Your task to perform on an android device: change the upload size in google photos Image 0: 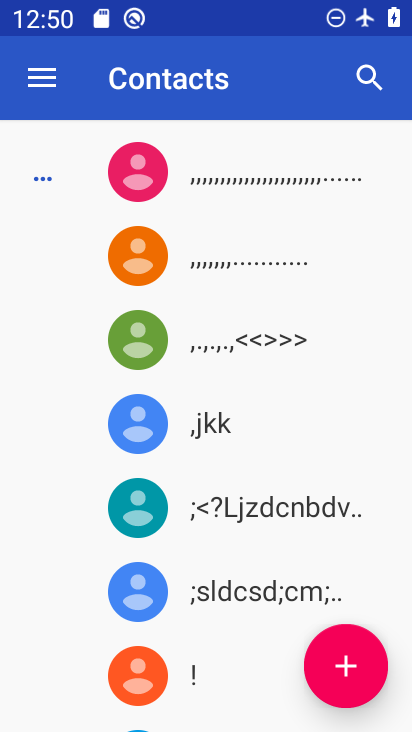
Step 0: press home button
Your task to perform on an android device: change the upload size in google photos Image 1: 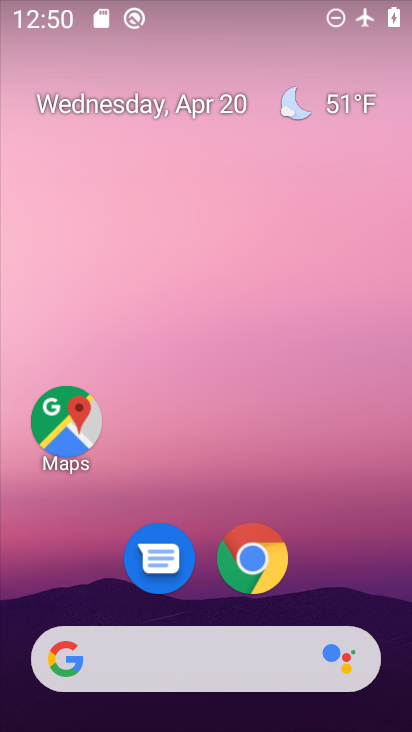
Step 1: drag from (347, 601) to (293, 174)
Your task to perform on an android device: change the upload size in google photos Image 2: 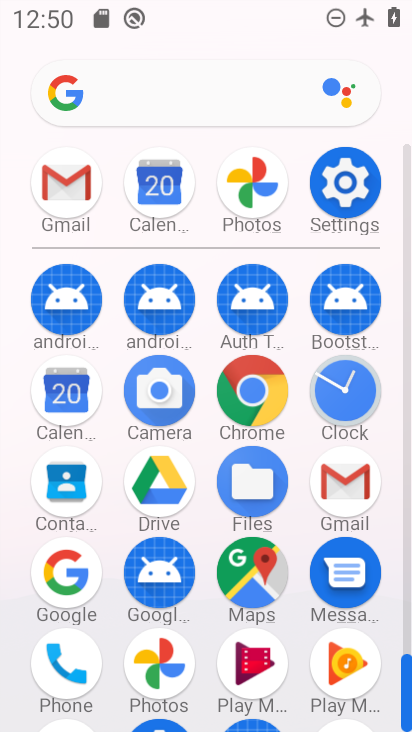
Step 2: click (160, 660)
Your task to perform on an android device: change the upload size in google photos Image 3: 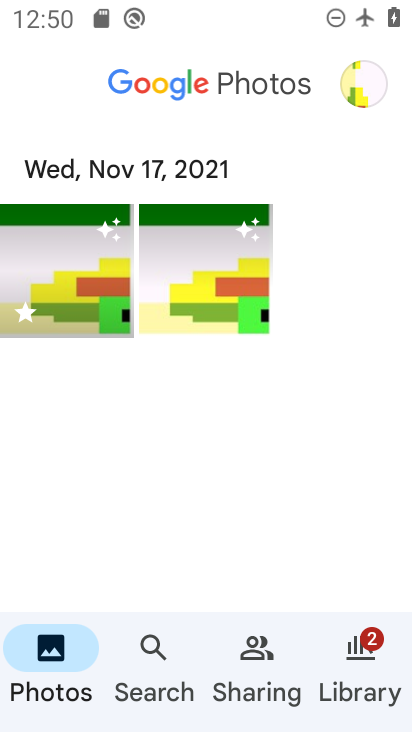
Step 3: click (362, 97)
Your task to perform on an android device: change the upload size in google photos Image 4: 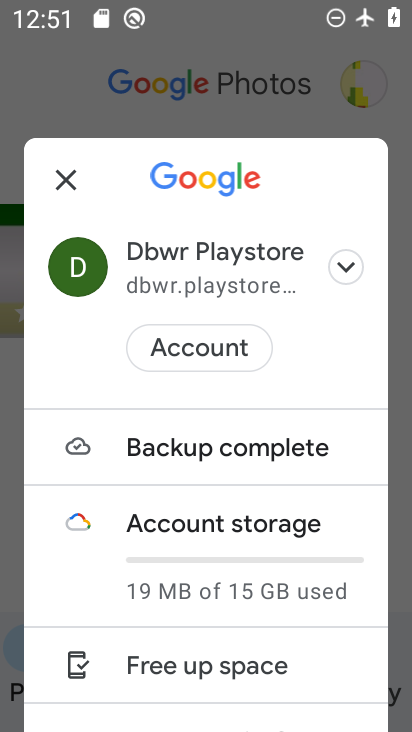
Step 4: drag from (336, 618) to (312, 300)
Your task to perform on an android device: change the upload size in google photos Image 5: 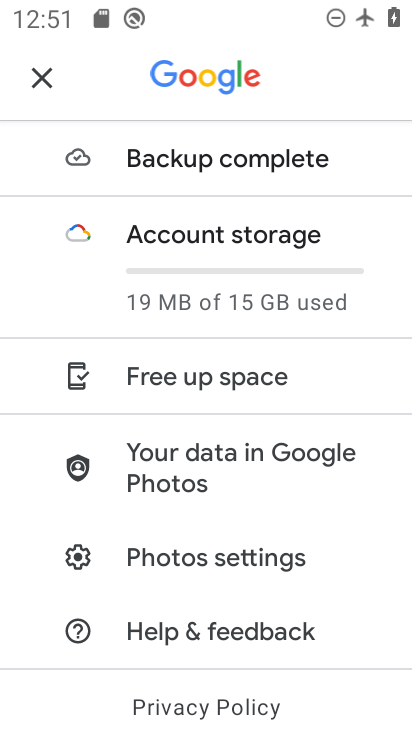
Step 5: click (156, 555)
Your task to perform on an android device: change the upload size in google photos Image 6: 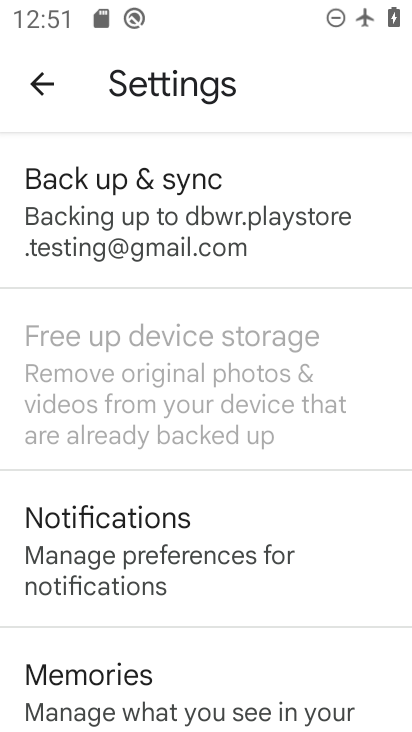
Step 6: click (88, 206)
Your task to perform on an android device: change the upload size in google photos Image 7: 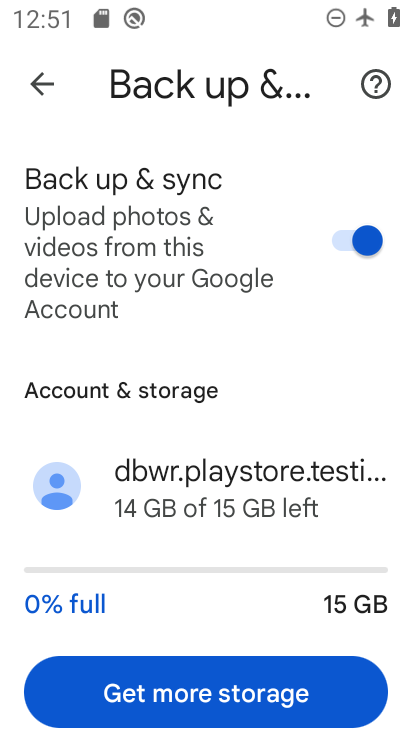
Step 7: drag from (255, 592) to (246, 231)
Your task to perform on an android device: change the upload size in google photos Image 8: 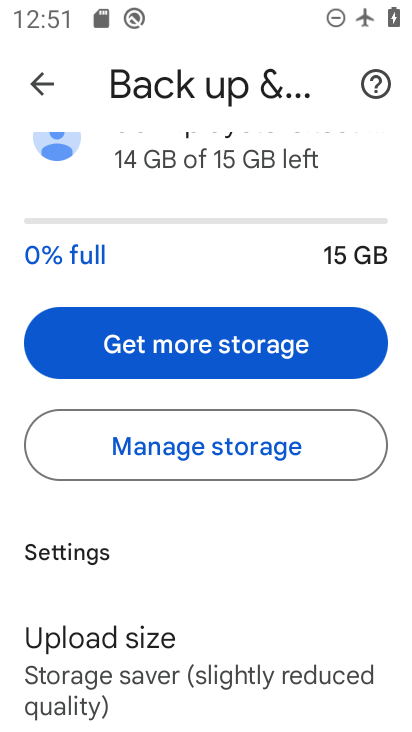
Step 8: drag from (288, 618) to (262, 227)
Your task to perform on an android device: change the upload size in google photos Image 9: 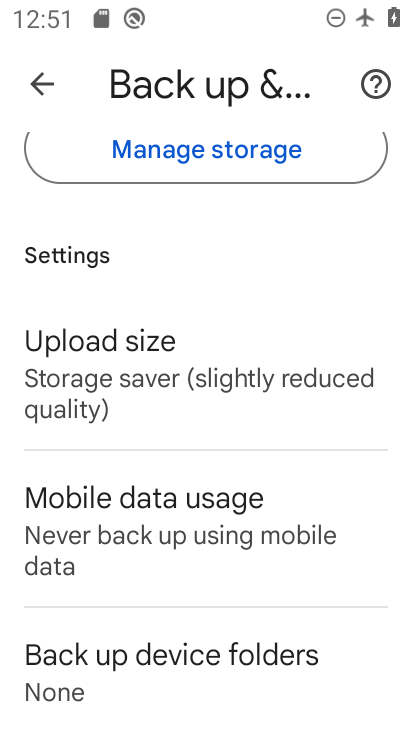
Step 9: click (78, 383)
Your task to perform on an android device: change the upload size in google photos Image 10: 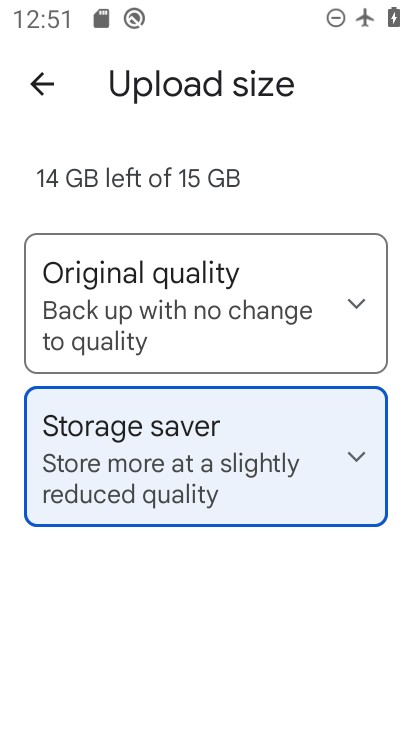
Step 10: click (158, 327)
Your task to perform on an android device: change the upload size in google photos Image 11: 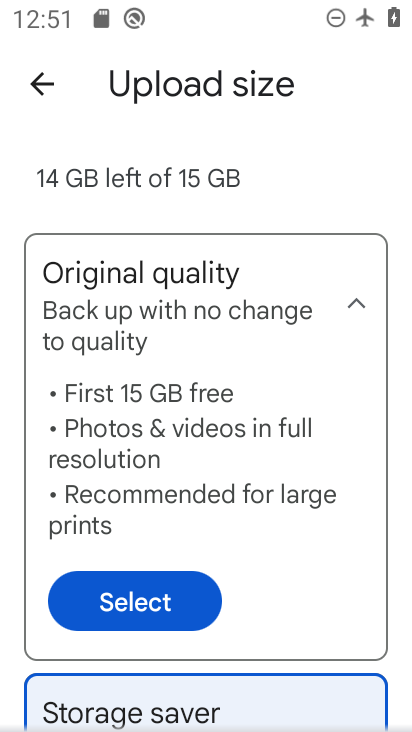
Step 11: click (125, 606)
Your task to perform on an android device: change the upload size in google photos Image 12: 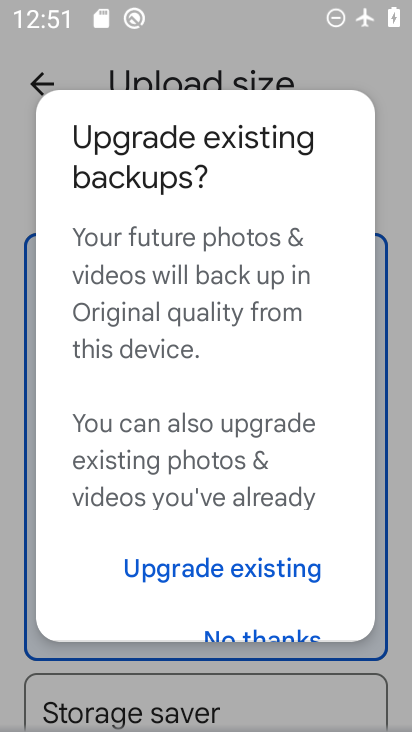
Step 12: click (266, 634)
Your task to perform on an android device: change the upload size in google photos Image 13: 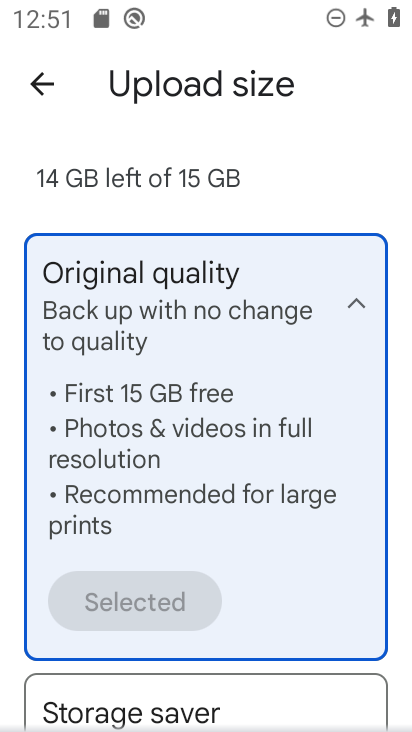
Step 13: task complete